Your task to perform on an android device: turn on improve location accuracy Image 0: 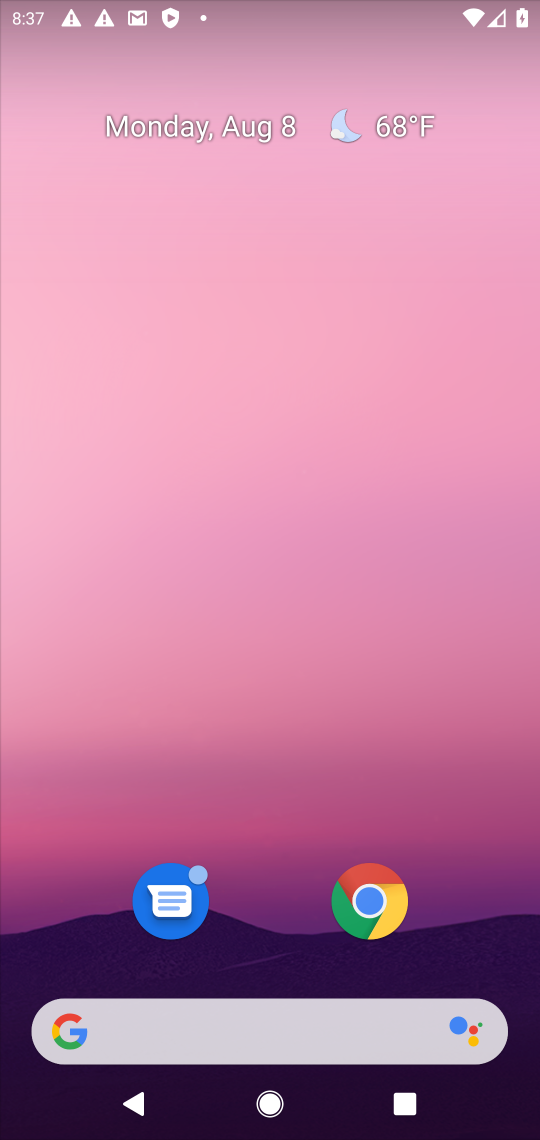
Step 0: drag from (306, 887) to (354, 5)
Your task to perform on an android device: turn on improve location accuracy Image 1: 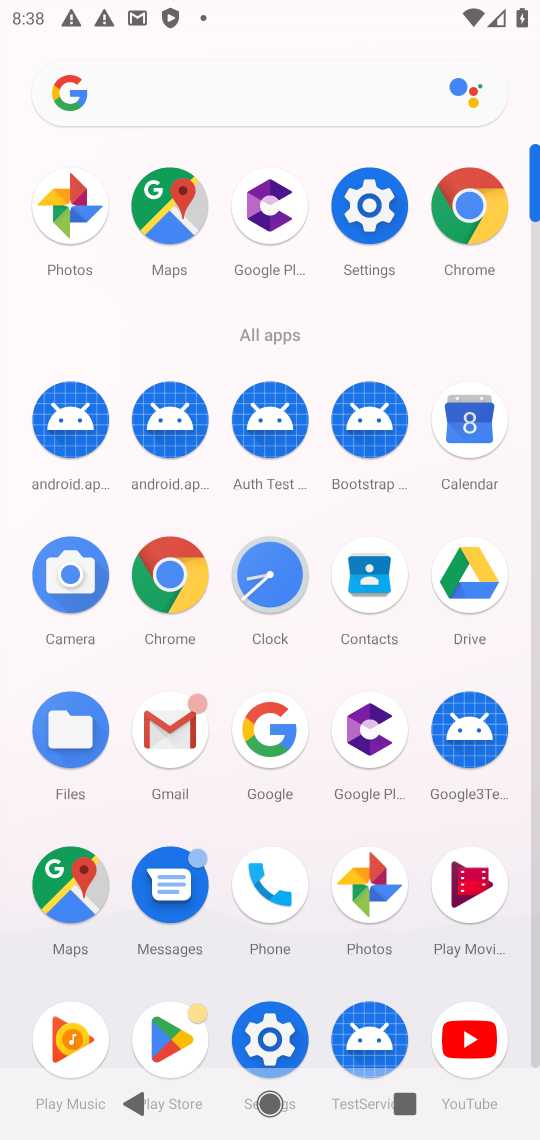
Step 1: click (268, 1038)
Your task to perform on an android device: turn on improve location accuracy Image 2: 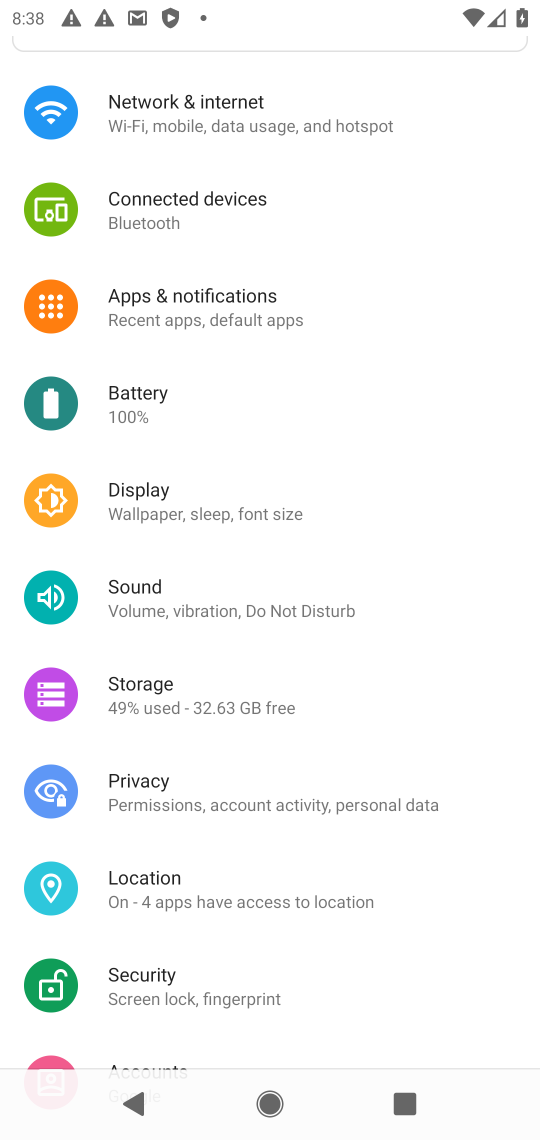
Step 2: click (176, 896)
Your task to perform on an android device: turn on improve location accuracy Image 3: 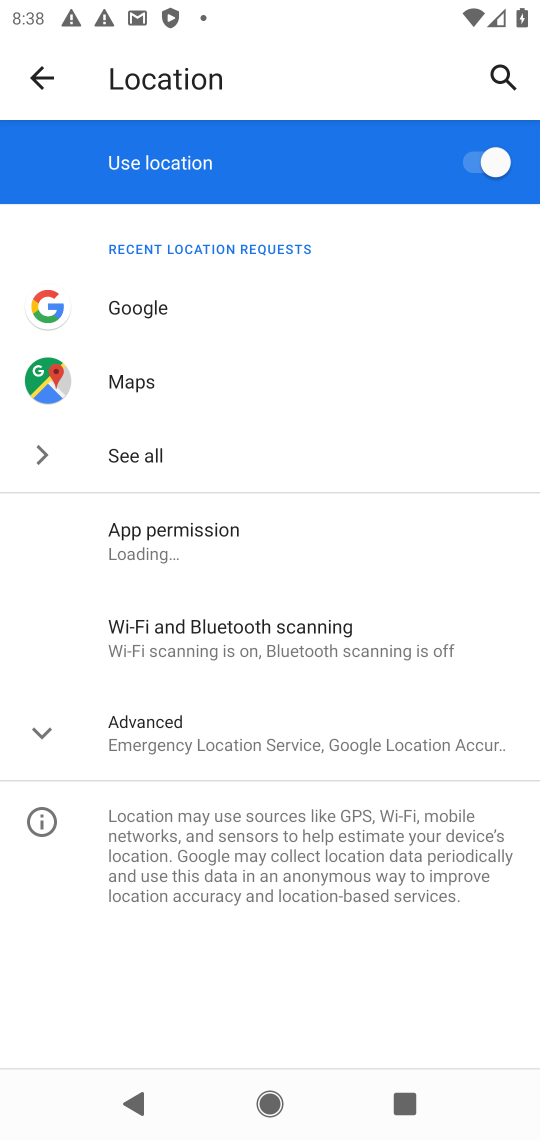
Step 3: click (205, 740)
Your task to perform on an android device: turn on improve location accuracy Image 4: 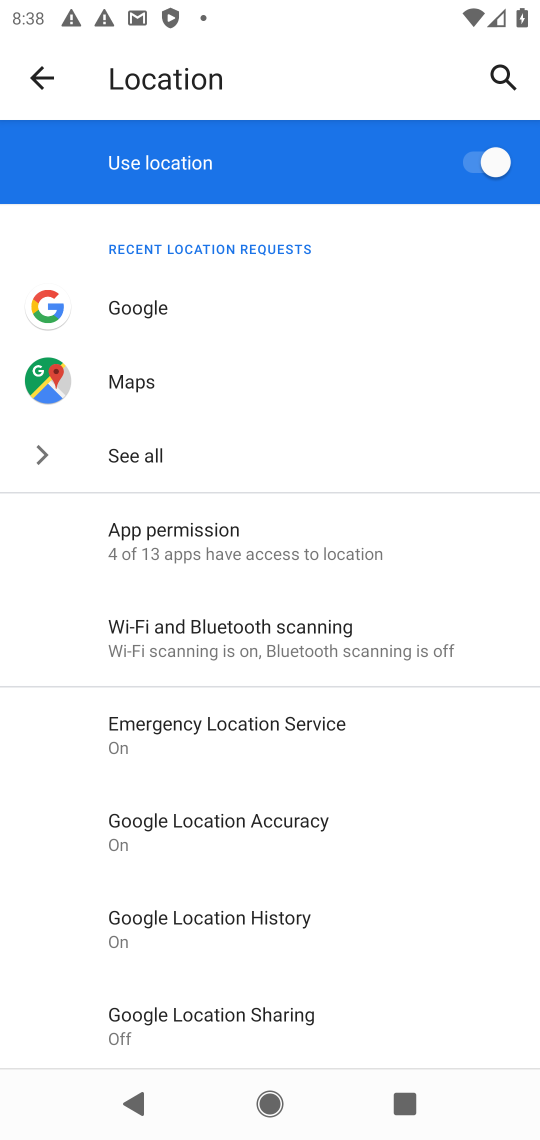
Step 4: click (208, 822)
Your task to perform on an android device: turn on improve location accuracy Image 5: 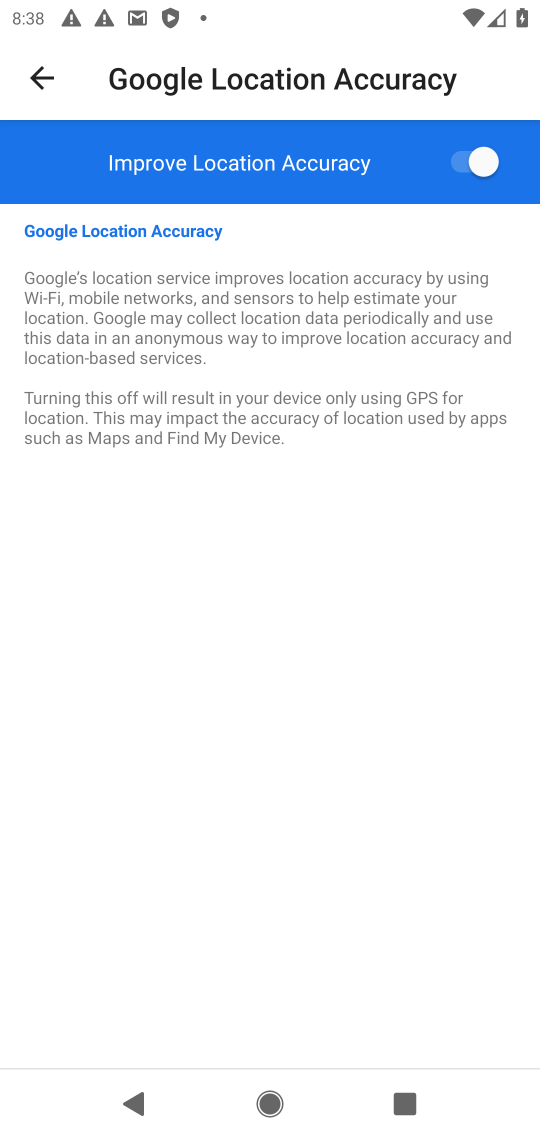
Step 5: click (462, 178)
Your task to perform on an android device: turn on improve location accuracy Image 6: 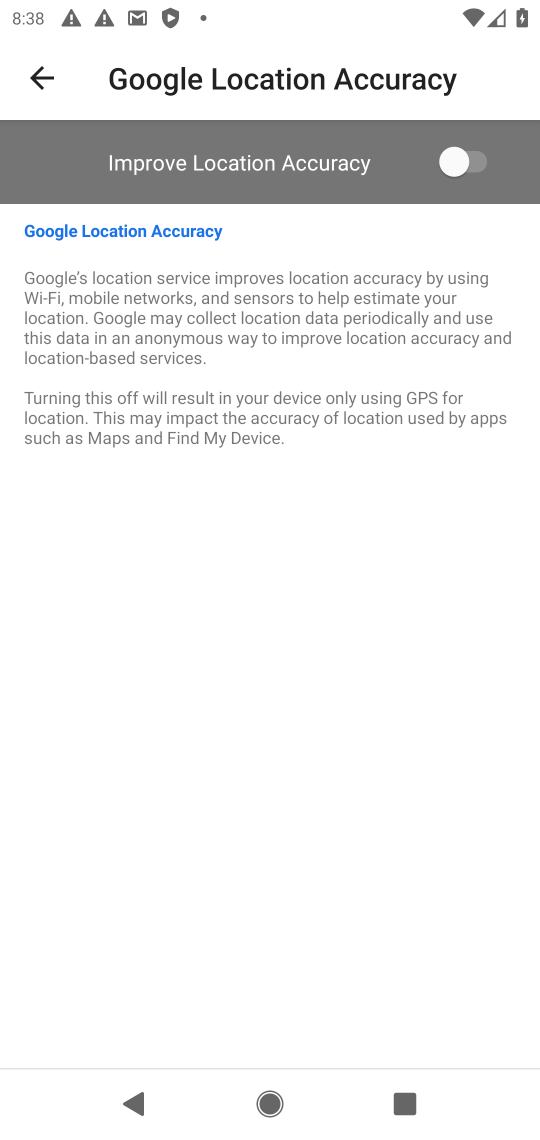
Step 6: task complete